Your task to perform on an android device: Open CNN.com Image 0: 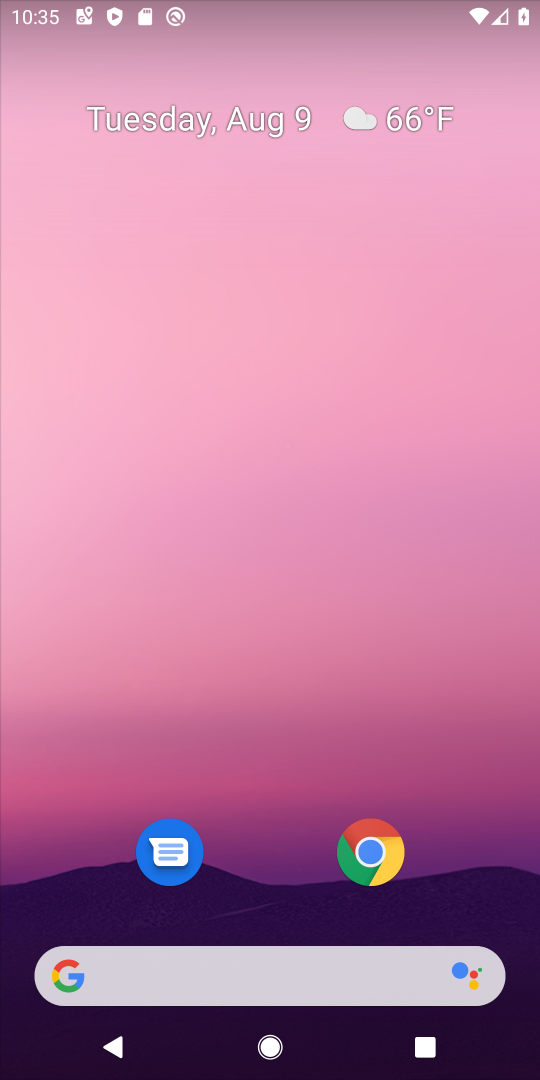
Step 0: click (199, 953)
Your task to perform on an android device: Open CNN.com Image 1: 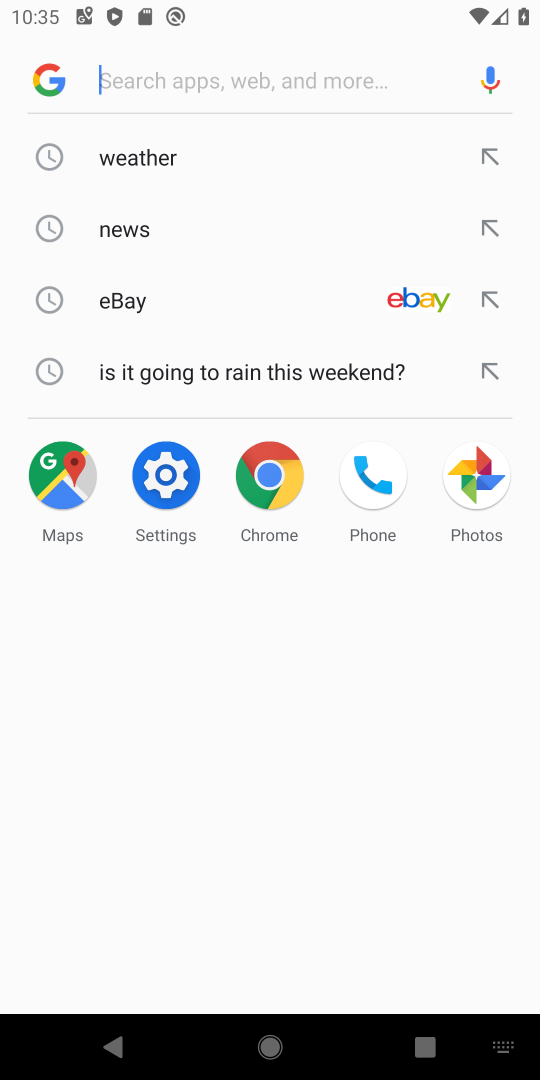
Step 1: type "cnn"
Your task to perform on an android device: Open CNN.com Image 2: 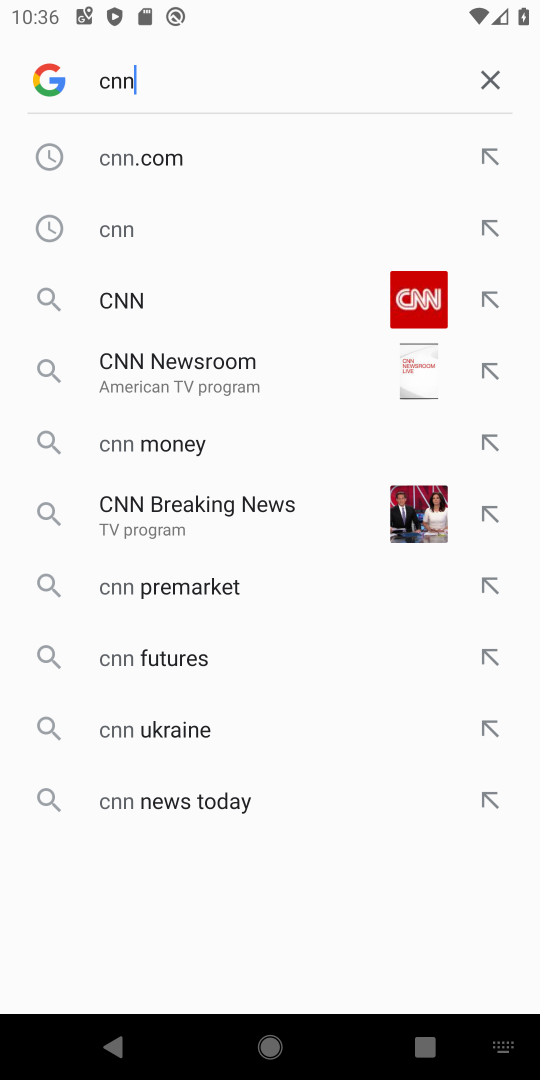
Step 2: click (200, 314)
Your task to perform on an android device: Open CNN.com Image 3: 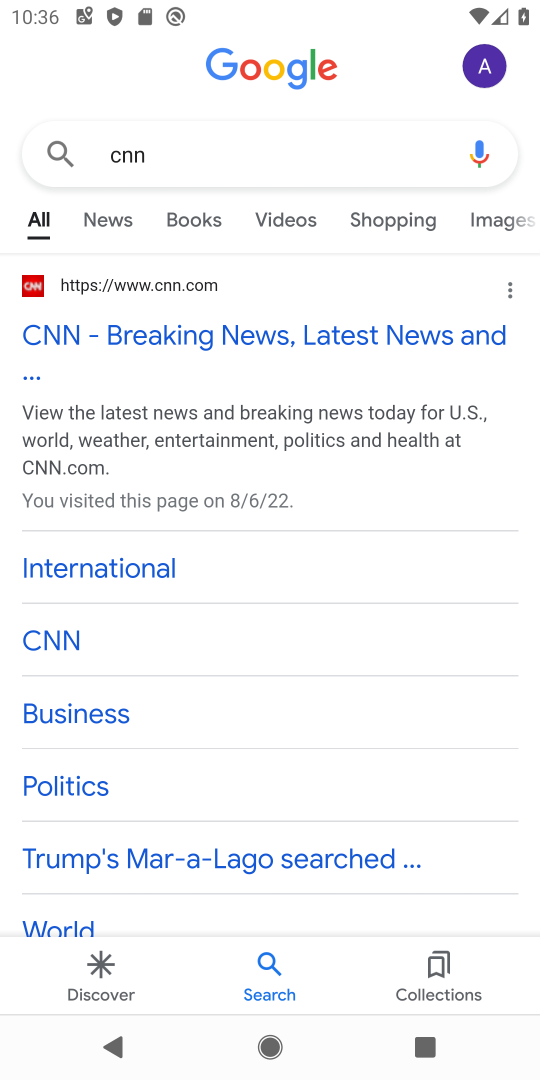
Step 3: click (181, 354)
Your task to perform on an android device: Open CNN.com Image 4: 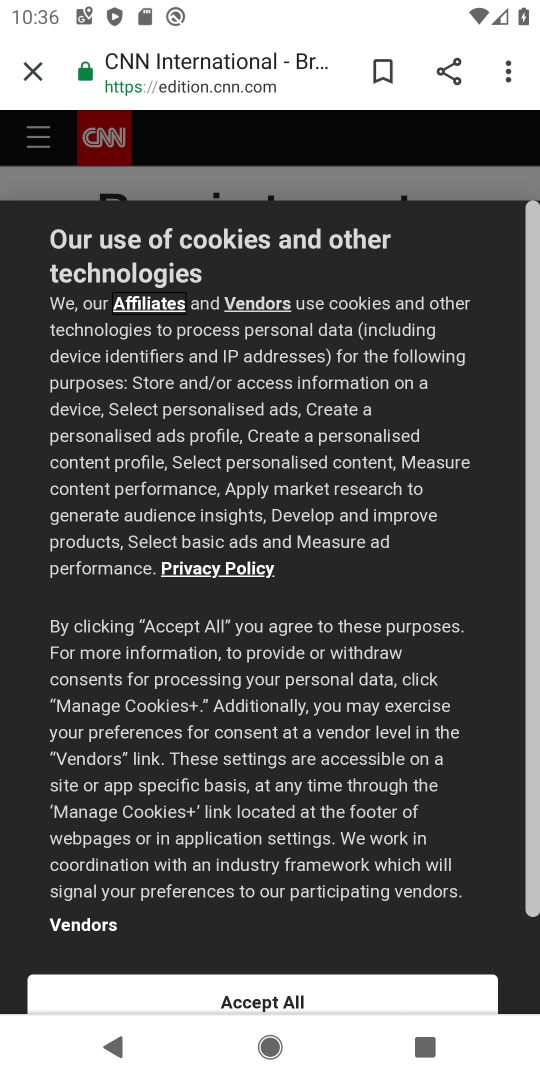
Step 4: task complete